Your task to perform on an android device: Open display settings Image 0: 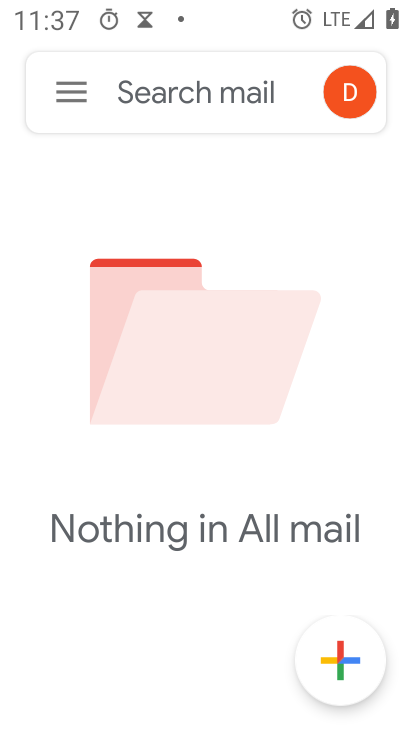
Step 0: press home button
Your task to perform on an android device: Open display settings Image 1: 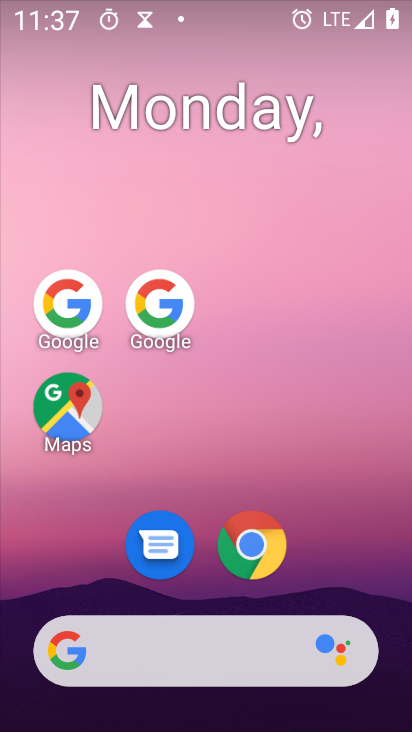
Step 1: drag from (192, 639) to (283, 179)
Your task to perform on an android device: Open display settings Image 2: 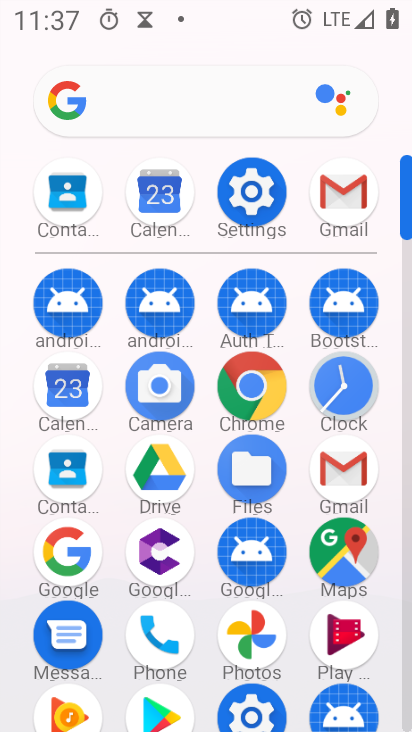
Step 2: click (254, 205)
Your task to perform on an android device: Open display settings Image 3: 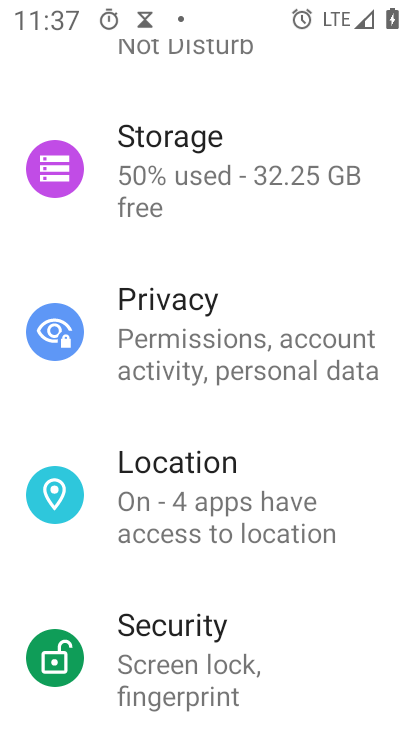
Step 3: drag from (269, 267) to (196, 618)
Your task to perform on an android device: Open display settings Image 4: 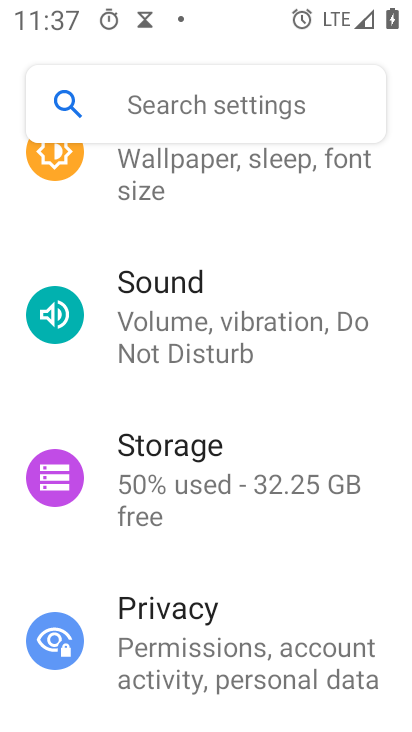
Step 4: drag from (260, 264) to (201, 560)
Your task to perform on an android device: Open display settings Image 5: 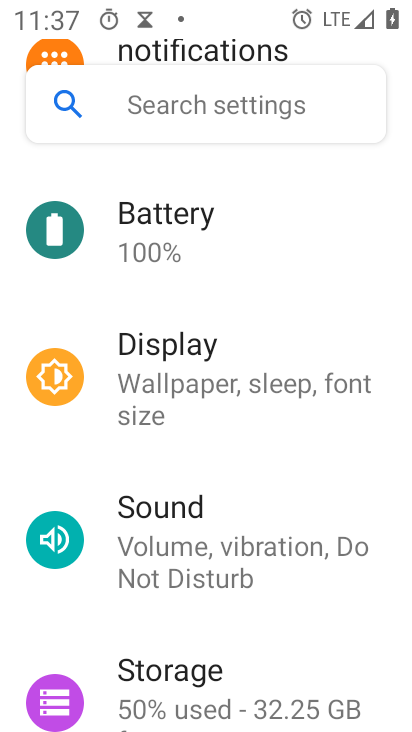
Step 5: click (168, 380)
Your task to perform on an android device: Open display settings Image 6: 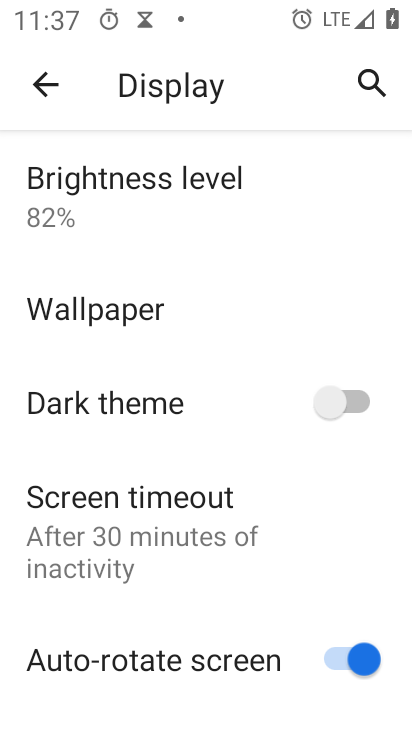
Step 6: task complete